Your task to perform on an android device: Open location settings Image 0: 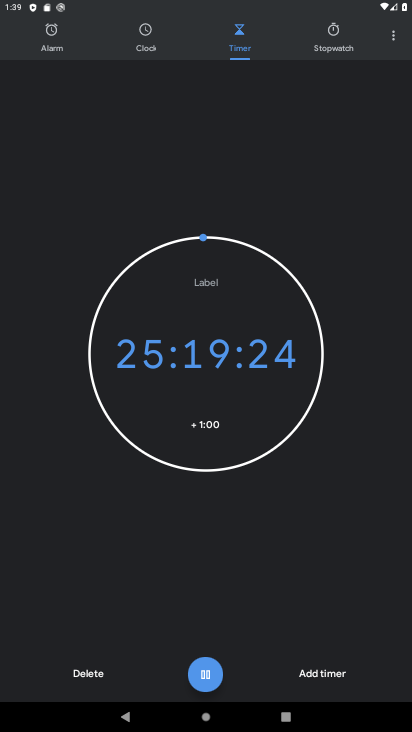
Step 0: press home button
Your task to perform on an android device: Open location settings Image 1: 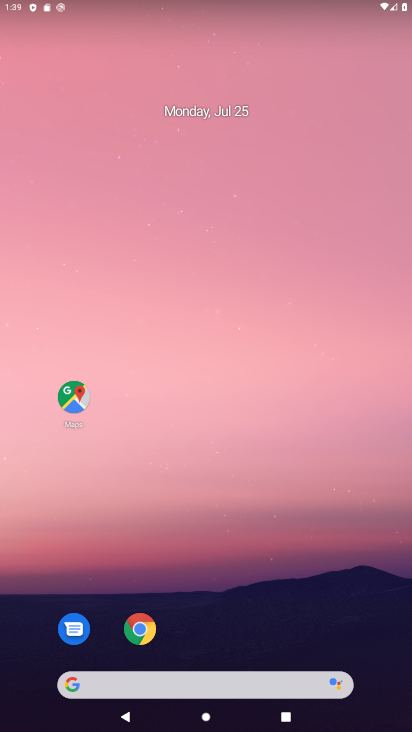
Step 1: drag from (205, 642) to (177, 0)
Your task to perform on an android device: Open location settings Image 2: 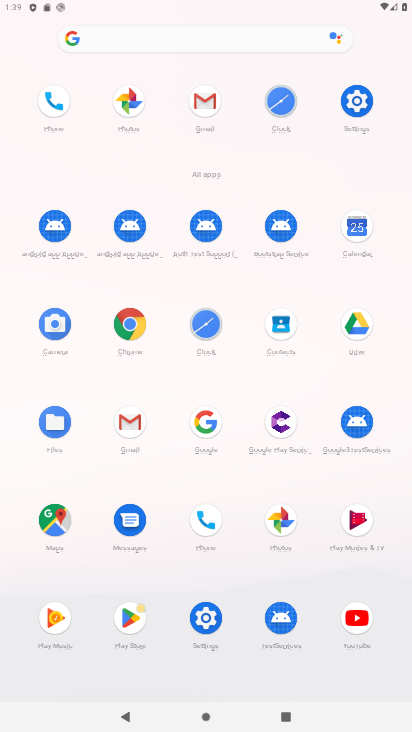
Step 2: click (352, 119)
Your task to perform on an android device: Open location settings Image 3: 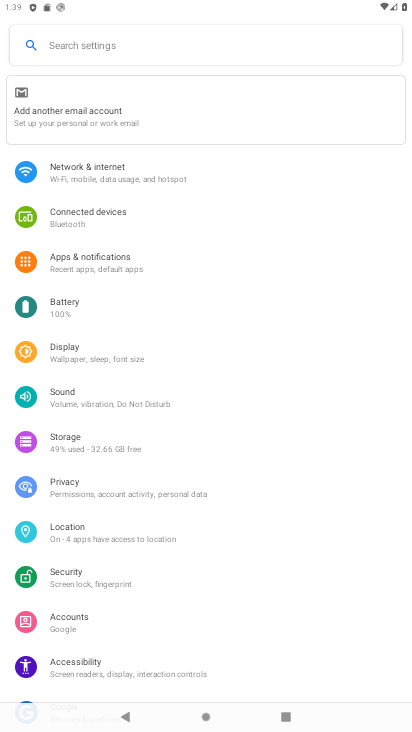
Step 3: click (73, 540)
Your task to perform on an android device: Open location settings Image 4: 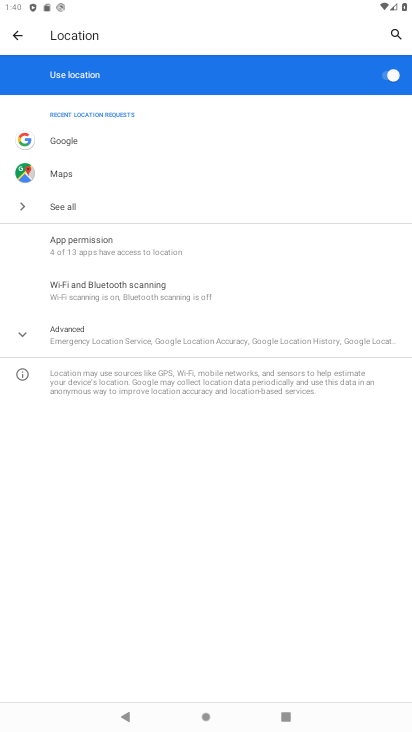
Step 4: task complete